Your task to perform on an android device: Go to Google maps Image 0: 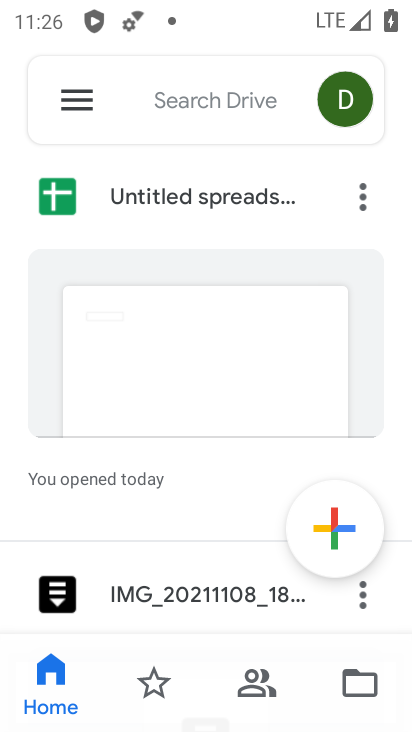
Step 0: press home button
Your task to perform on an android device: Go to Google maps Image 1: 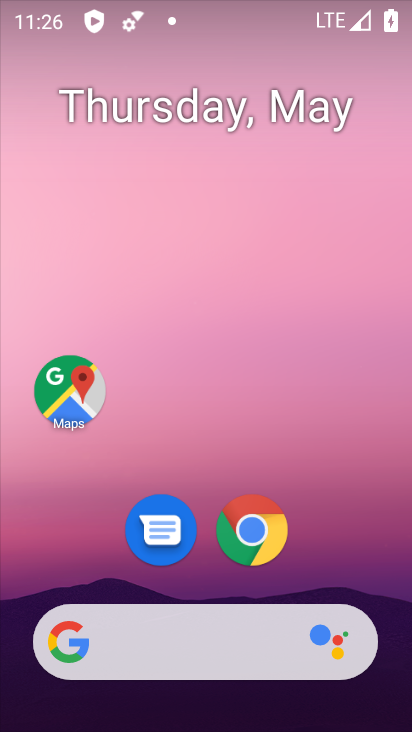
Step 1: click (63, 393)
Your task to perform on an android device: Go to Google maps Image 2: 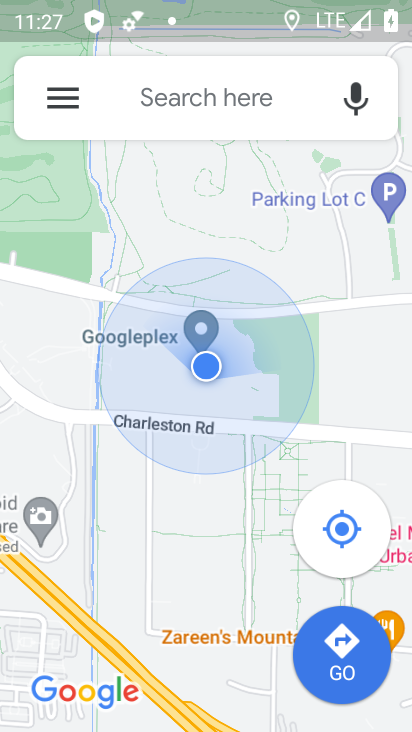
Step 2: task complete